Your task to perform on an android device: Open the Play Movies app and select the watchlist tab. Image 0: 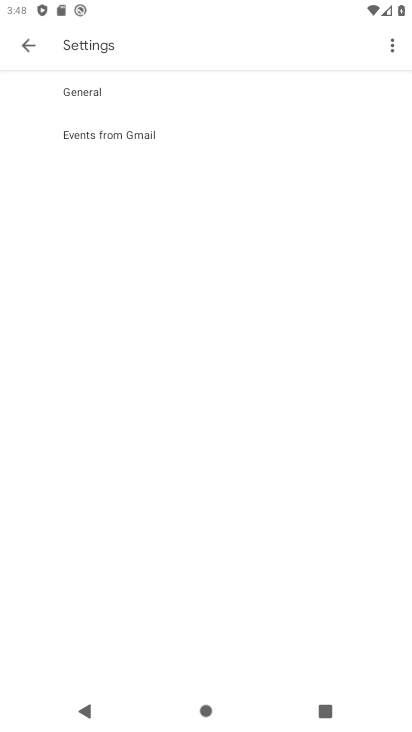
Step 0: drag from (225, 512) to (243, 343)
Your task to perform on an android device: Open the Play Movies app and select the watchlist tab. Image 1: 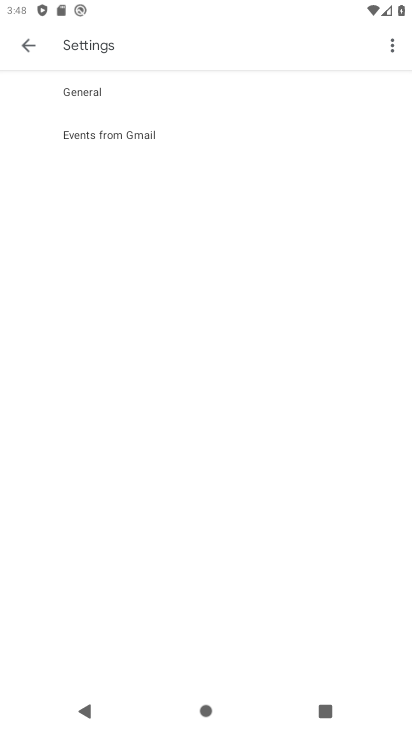
Step 1: press home button
Your task to perform on an android device: Open the Play Movies app and select the watchlist tab. Image 2: 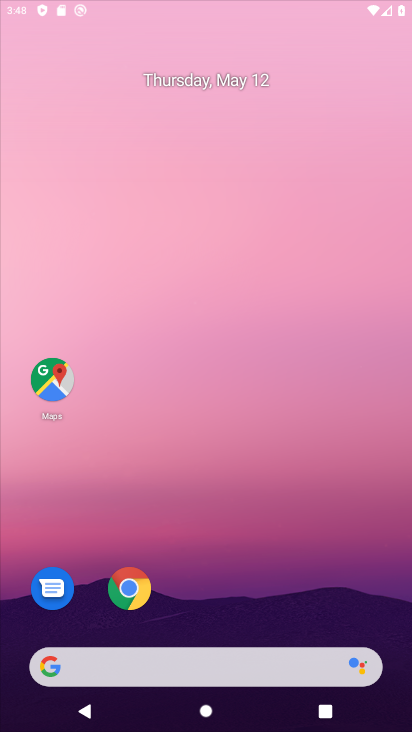
Step 2: drag from (210, 558) to (188, 233)
Your task to perform on an android device: Open the Play Movies app and select the watchlist tab. Image 3: 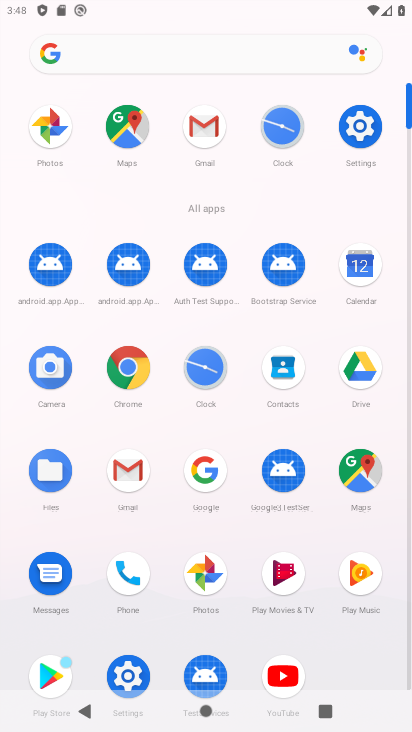
Step 3: click (284, 664)
Your task to perform on an android device: Open the Play Movies app and select the watchlist tab. Image 4: 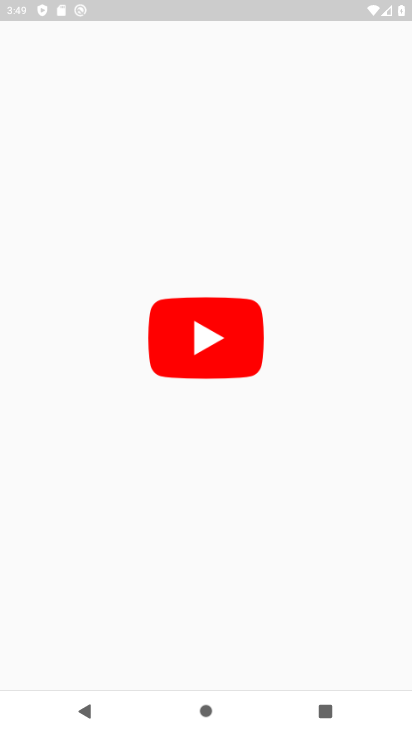
Step 4: drag from (228, 593) to (254, 262)
Your task to perform on an android device: Open the Play Movies app and select the watchlist tab. Image 5: 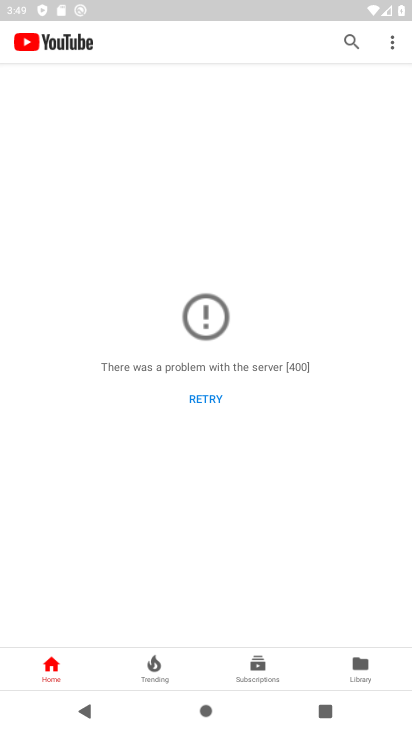
Step 5: drag from (205, 654) to (260, 320)
Your task to perform on an android device: Open the Play Movies app and select the watchlist tab. Image 6: 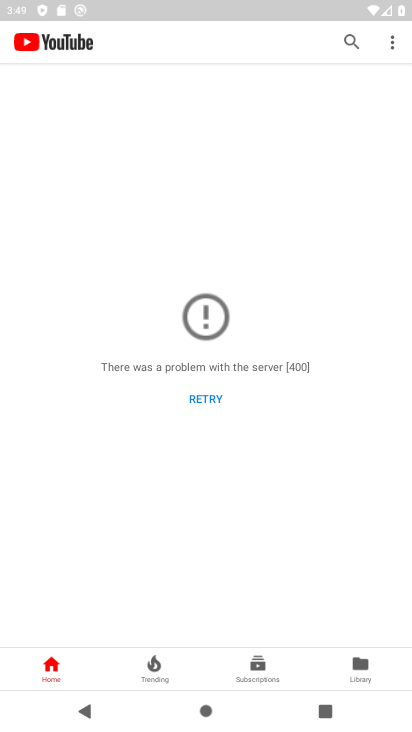
Step 6: click (193, 394)
Your task to perform on an android device: Open the Play Movies app and select the watchlist tab. Image 7: 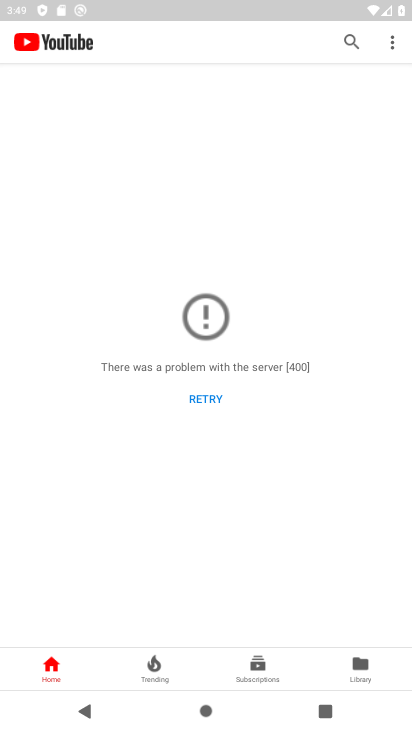
Step 7: click (193, 394)
Your task to perform on an android device: Open the Play Movies app and select the watchlist tab. Image 8: 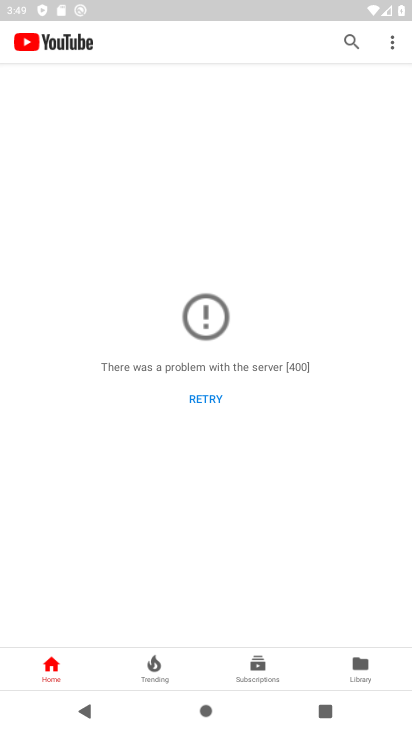
Step 8: click (356, 653)
Your task to perform on an android device: Open the Play Movies app and select the watchlist tab. Image 9: 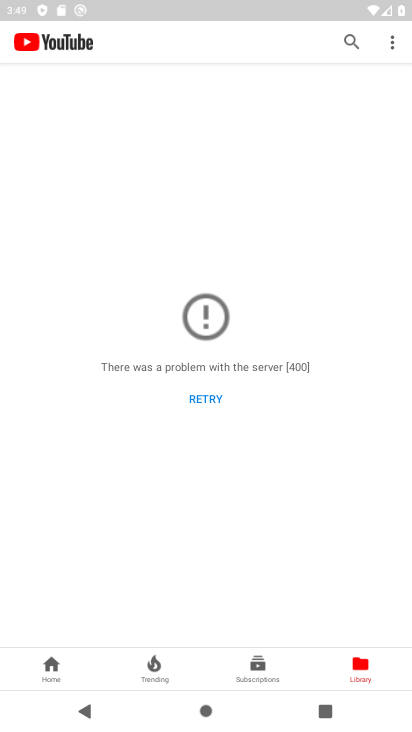
Step 9: click (183, 365)
Your task to perform on an android device: Open the Play Movies app and select the watchlist tab. Image 10: 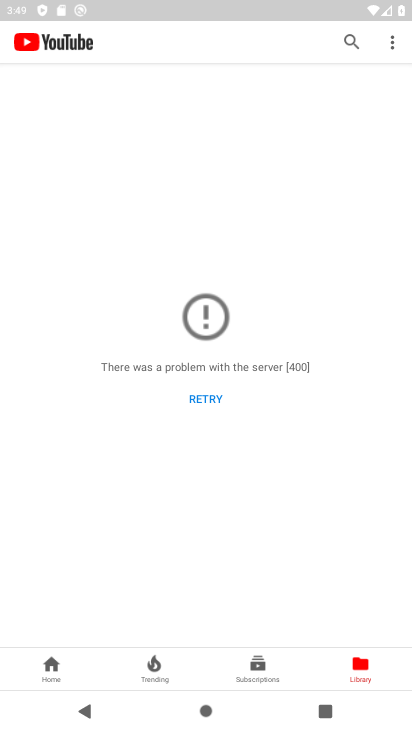
Step 10: click (196, 406)
Your task to perform on an android device: Open the Play Movies app and select the watchlist tab. Image 11: 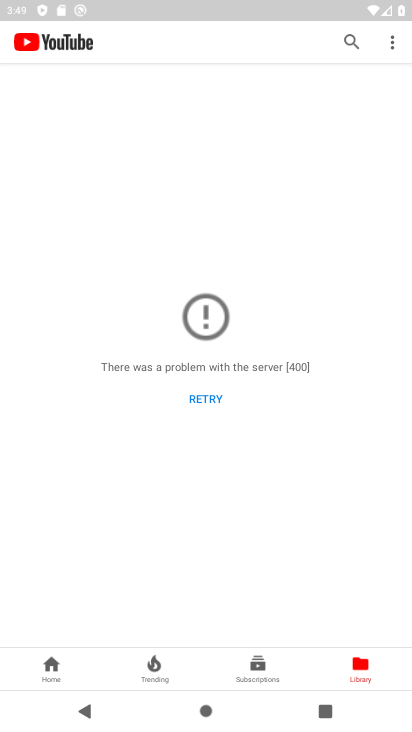
Step 11: task complete